Your task to perform on an android device: Open Google Image 0: 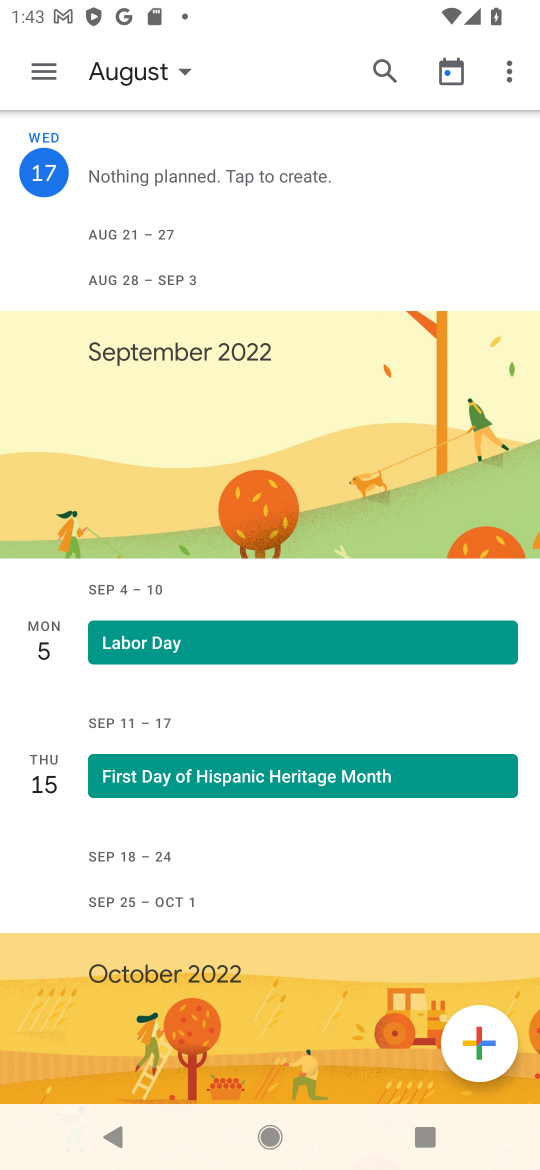
Step 0: press home button
Your task to perform on an android device: Open Google Image 1: 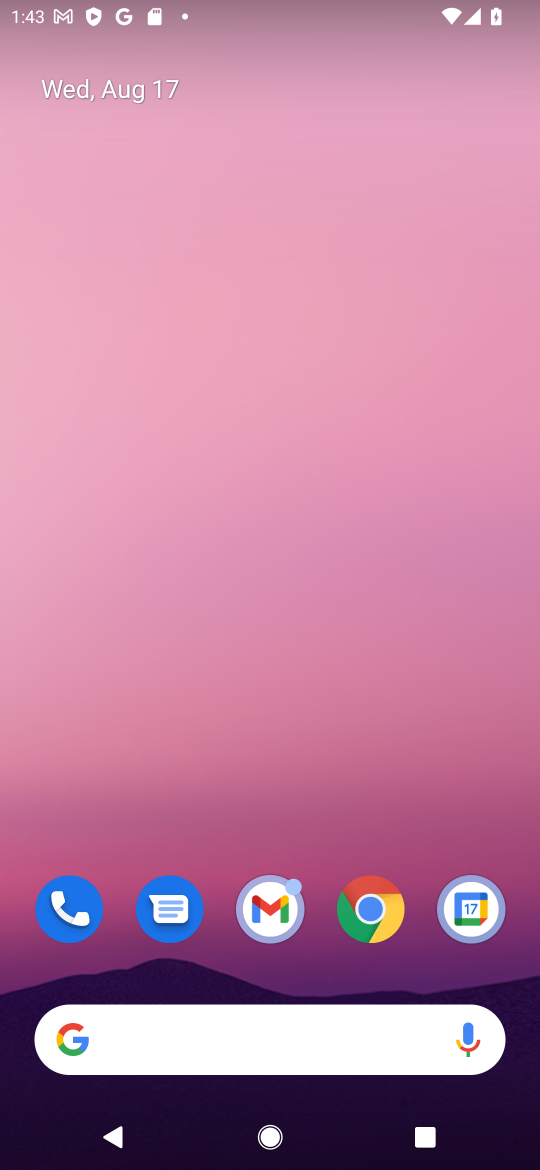
Step 1: drag from (185, 822) to (331, 147)
Your task to perform on an android device: Open Google Image 2: 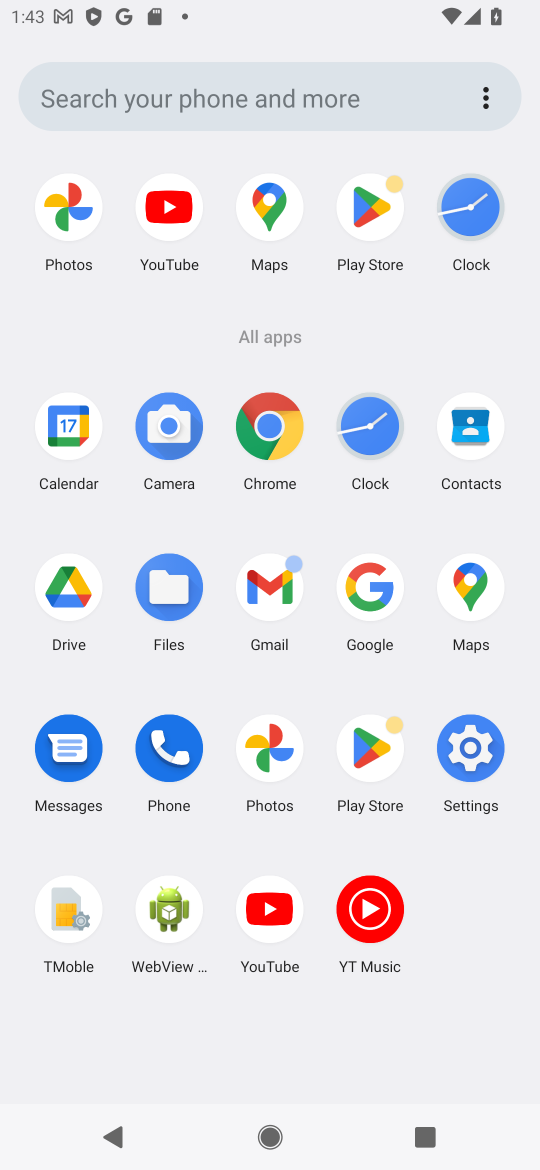
Step 2: click (384, 594)
Your task to perform on an android device: Open Google Image 3: 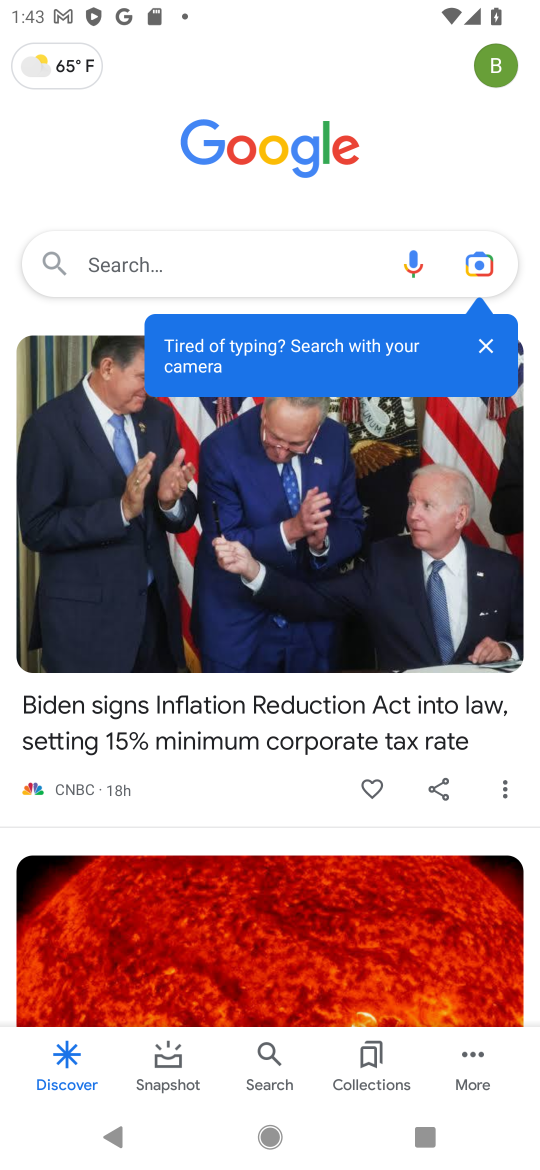
Step 3: task complete